Your task to perform on an android device: turn off improve location accuracy Image 0: 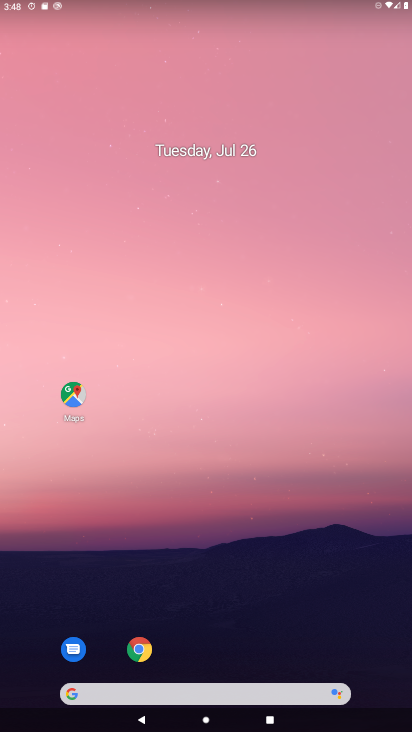
Step 0: drag from (327, 599) to (223, 15)
Your task to perform on an android device: turn off improve location accuracy Image 1: 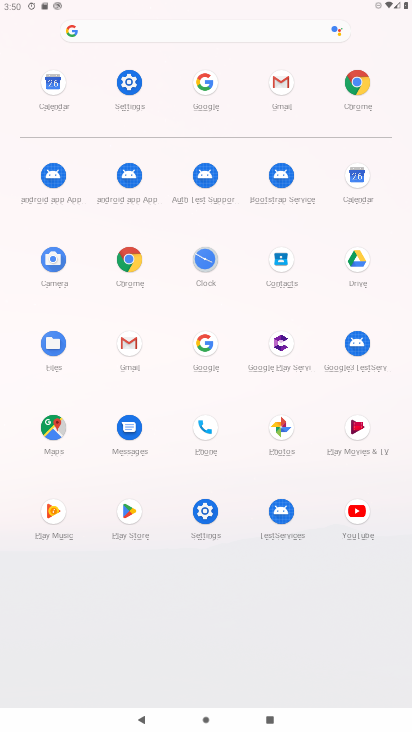
Step 1: click (215, 527)
Your task to perform on an android device: turn off improve location accuracy Image 2: 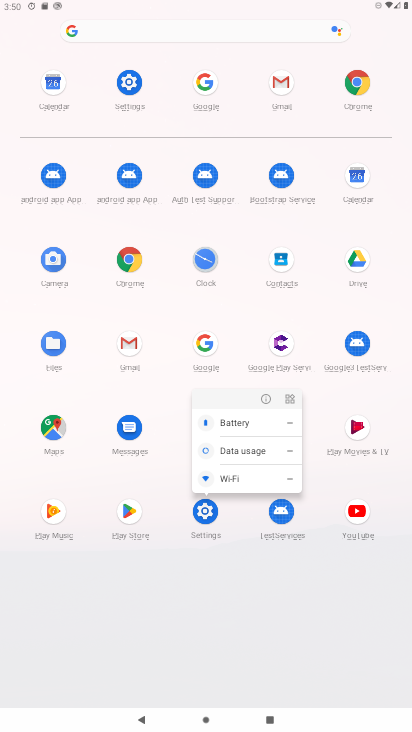
Step 2: click (212, 525)
Your task to perform on an android device: turn off improve location accuracy Image 3: 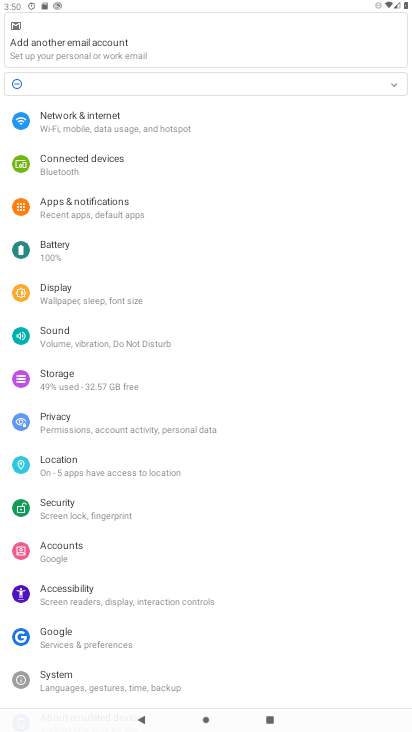
Step 3: click (47, 469)
Your task to perform on an android device: turn off improve location accuracy Image 4: 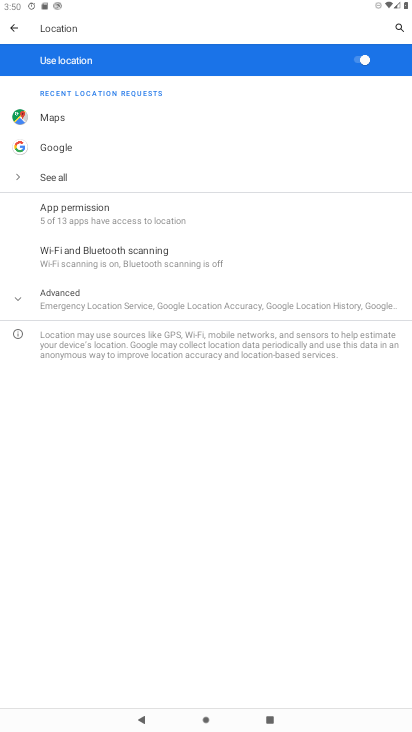
Step 4: click (82, 303)
Your task to perform on an android device: turn off improve location accuracy Image 5: 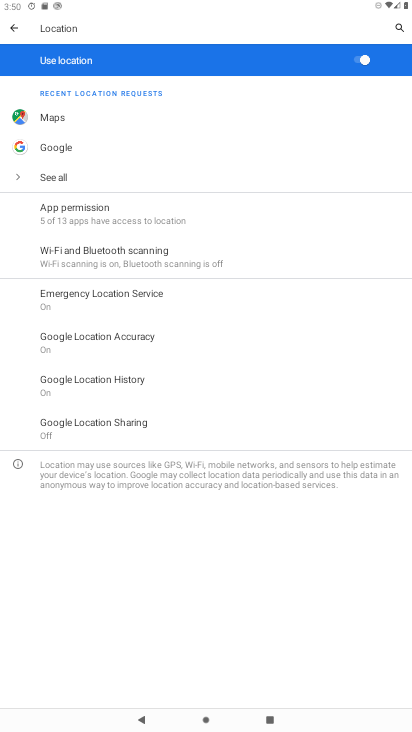
Step 5: click (108, 344)
Your task to perform on an android device: turn off improve location accuracy Image 6: 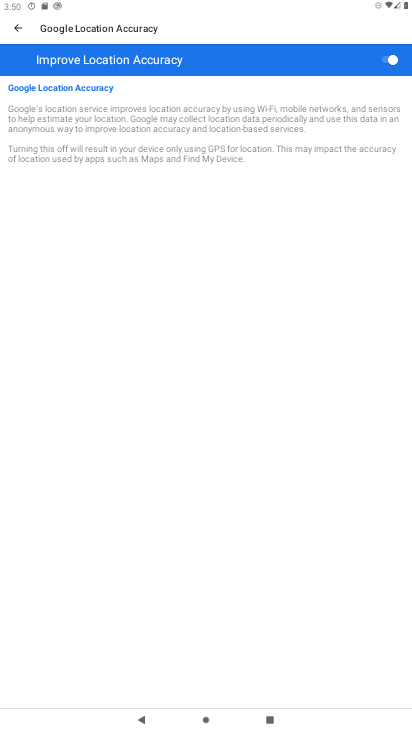
Step 6: click (379, 64)
Your task to perform on an android device: turn off improve location accuracy Image 7: 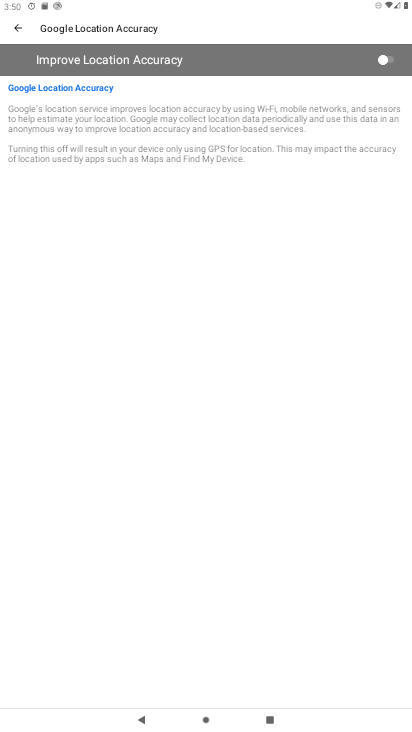
Step 7: task complete